Your task to perform on an android device: Go to Reddit.com Image 0: 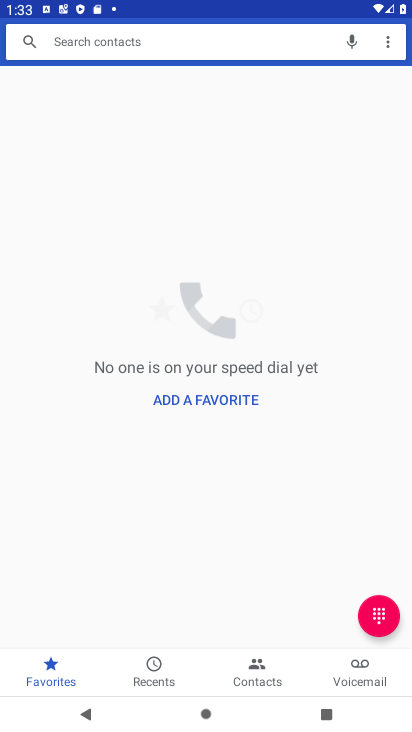
Step 0: press home button
Your task to perform on an android device: Go to Reddit.com Image 1: 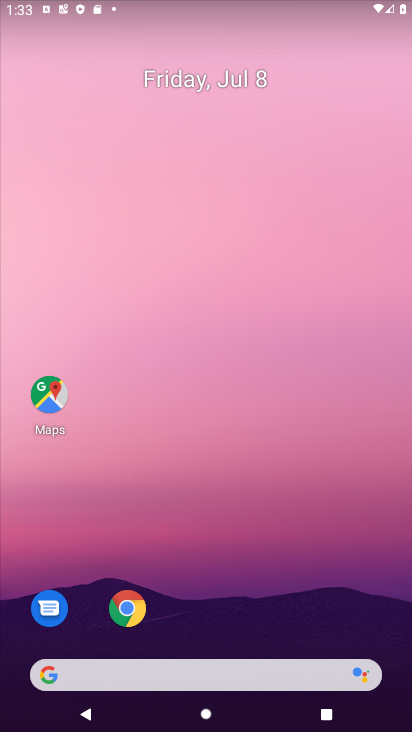
Step 1: click (129, 607)
Your task to perform on an android device: Go to Reddit.com Image 2: 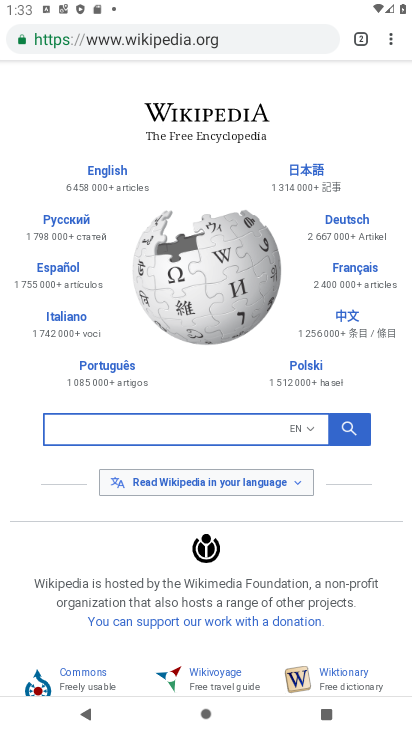
Step 2: click (239, 46)
Your task to perform on an android device: Go to Reddit.com Image 3: 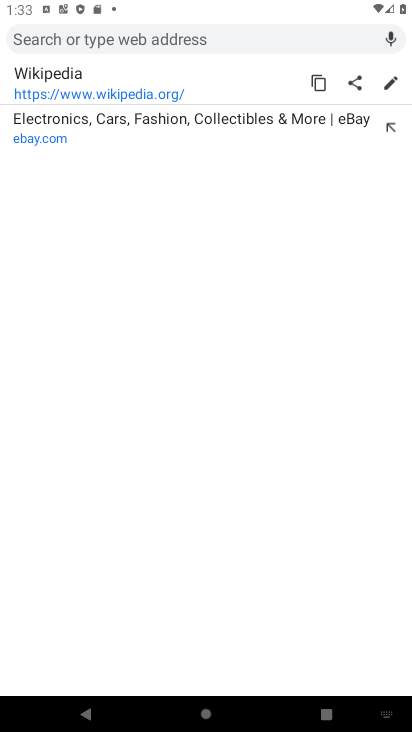
Step 3: type "Reddit.com"
Your task to perform on an android device: Go to Reddit.com Image 4: 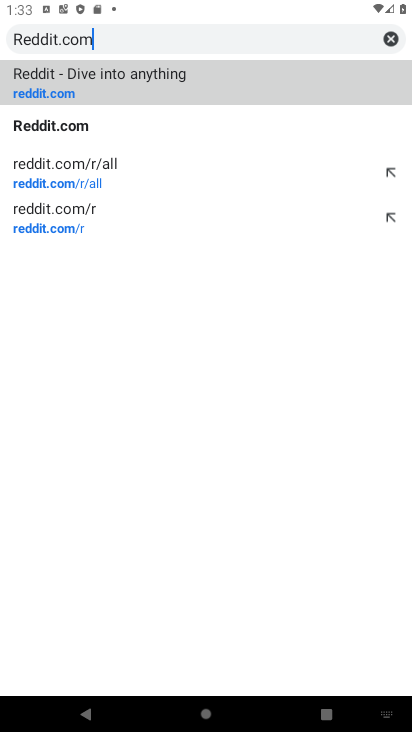
Step 4: click (53, 71)
Your task to perform on an android device: Go to Reddit.com Image 5: 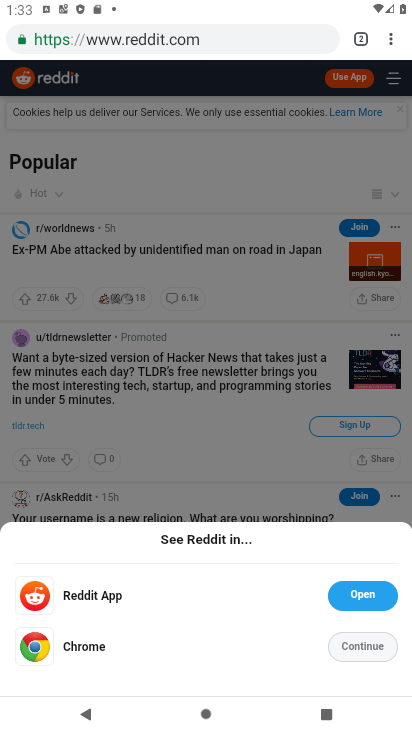
Step 5: task complete